Your task to perform on an android device: open device folders in google photos Image 0: 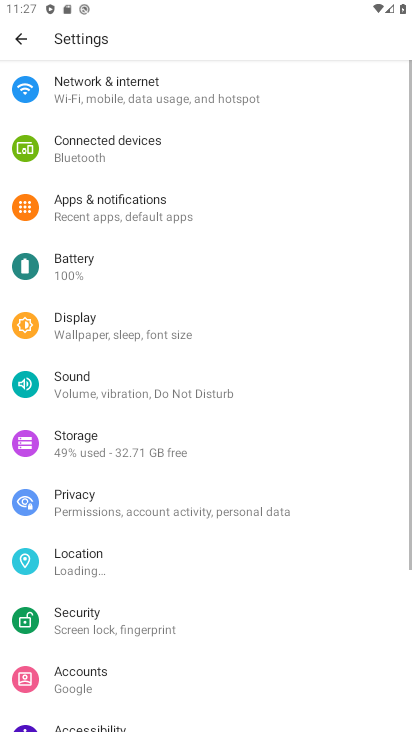
Step 0: press home button
Your task to perform on an android device: open device folders in google photos Image 1: 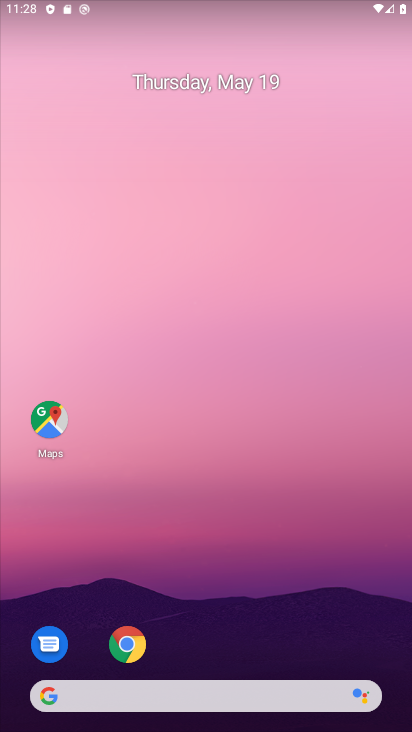
Step 1: drag from (212, 665) to (152, 193)
Your task to perform on an android device: open device folders in google photos Image 2: 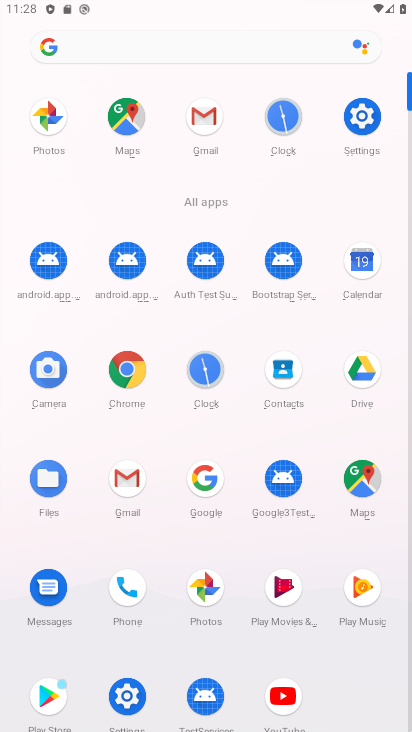
Step 2: click (208, 584)
Your task to perform on an android device: open device folders in google photos Image 3: 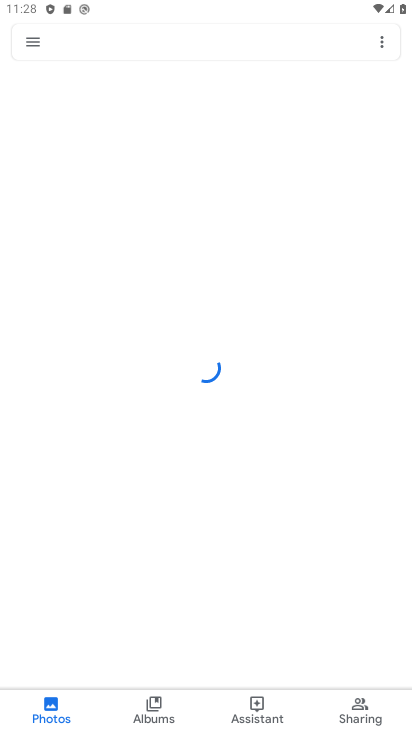
Step 3: click (35, 39)
Your task to perform on an android device: open device folders in google photos Image 4: 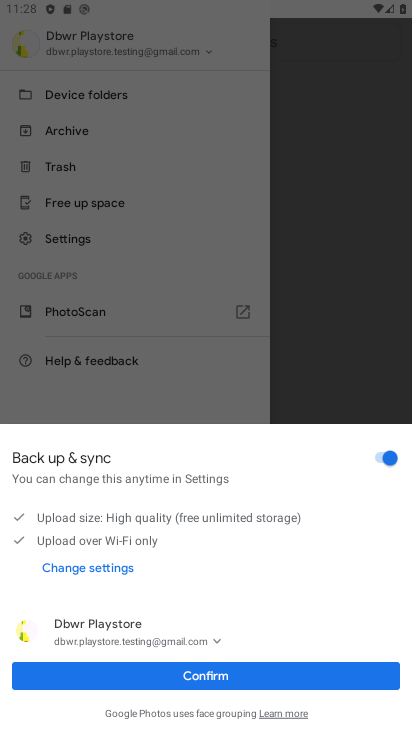
Step 4: click (234, 671)
Your task to perform on an android device: open device folders in google photos Image 5: 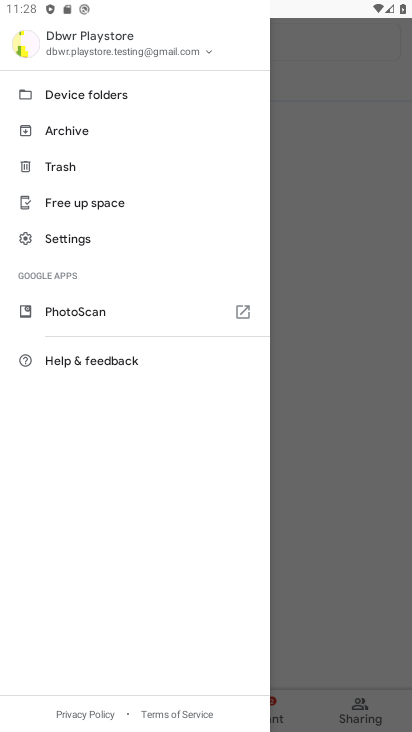
Step 5: click (75, 99)
Your task to perform on an android device: open device folders in google photos Image 6: 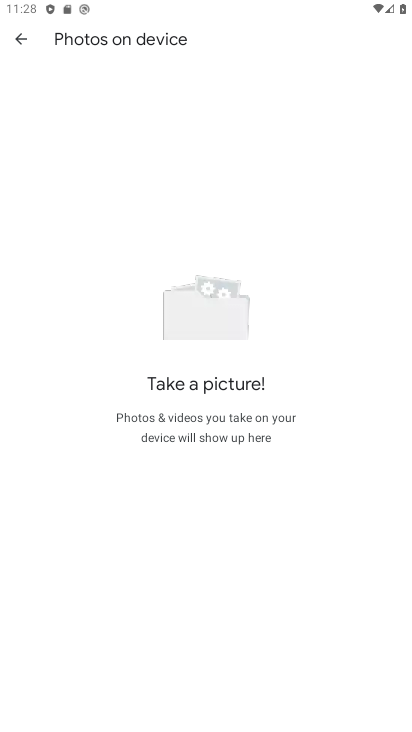
Step 6: task complete